Your task to perform on an android device: Open network settings Image 0: 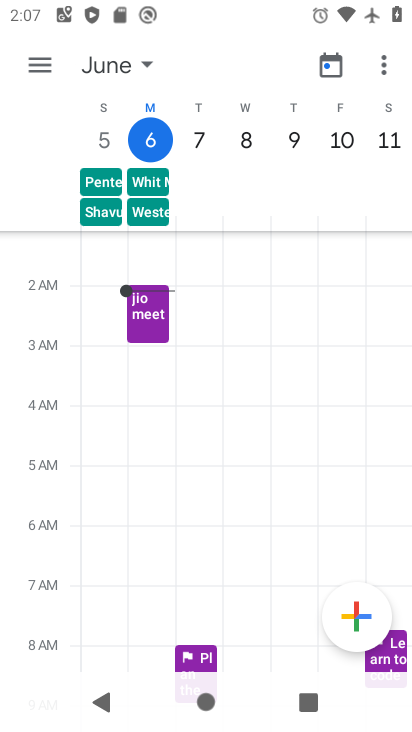
Step 0: press home button
Your task to perform on an android device: Open network settings Image 1: 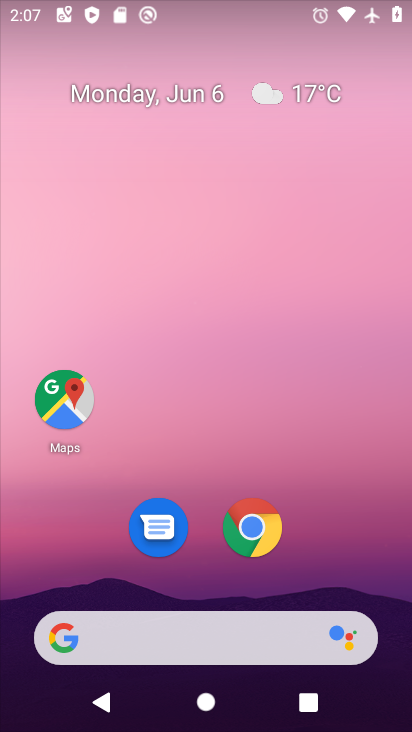
Step 1: drag from (309, 407) to (178, 11)
Your task to perform on an android device: Open network settings Image 2: 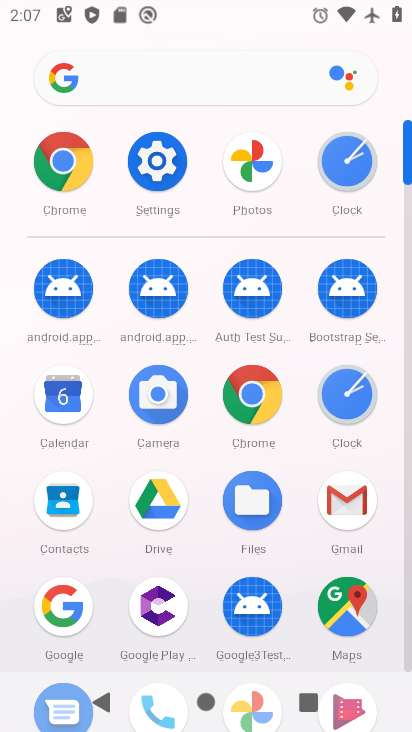
Step 2: click (157, 161)
Your task to perform on an android device: Open network settings Image 3: 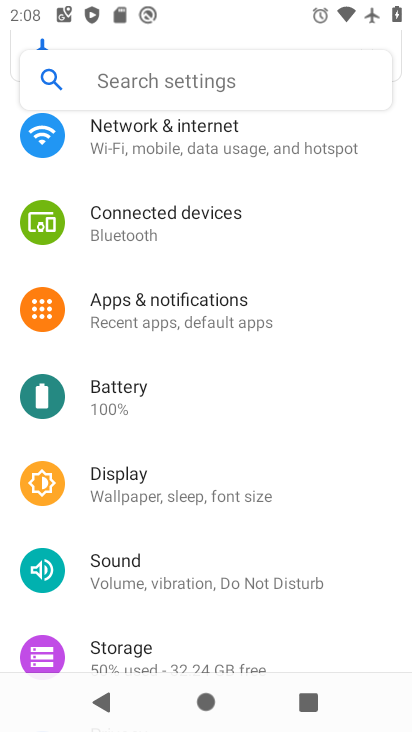
Step 3: click (246, 153)
Your task to perform on an android device: Open network settings Image 4: 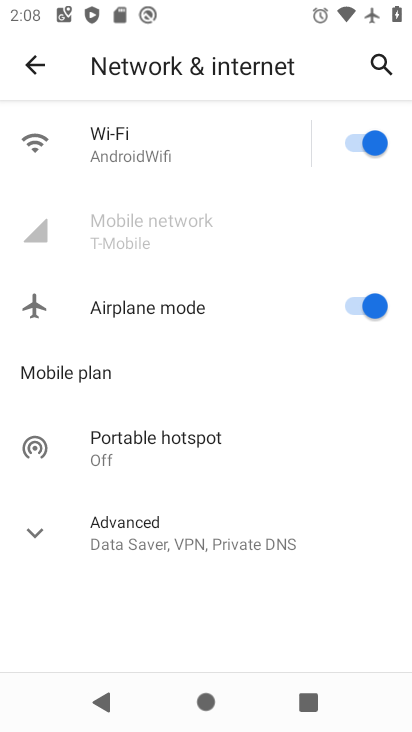
Step 4: task complete